Your task to perform on an android device: Open my contact list Image 0: 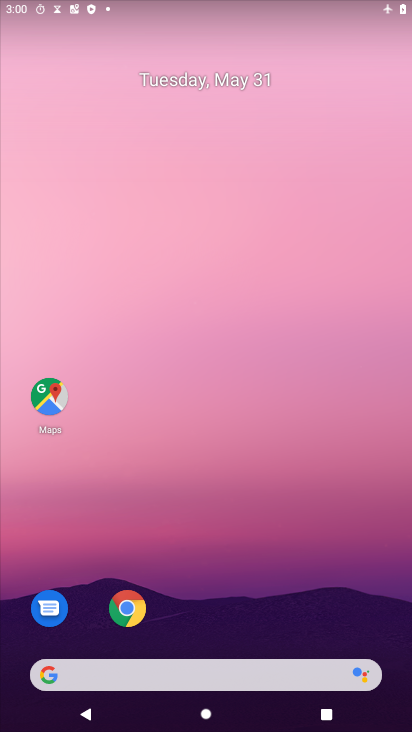
Step 0: drag from (240, 673) to (366, 340)
Your task to perform on an android device: Open my contact list Image 1: 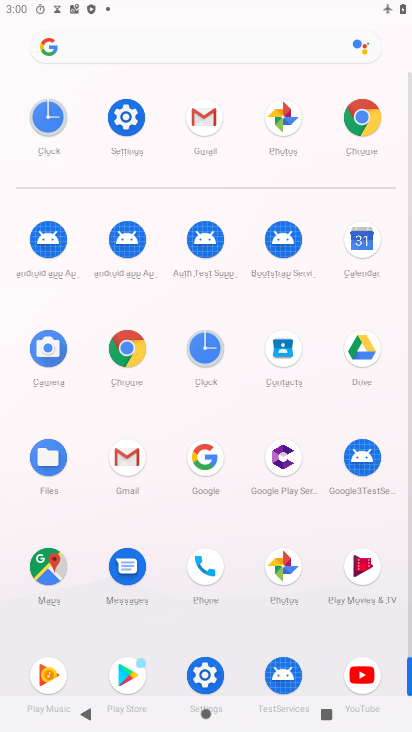
Step 1: click (285, 354)
Your task to perform on an android device: Open my contact list Image 2: 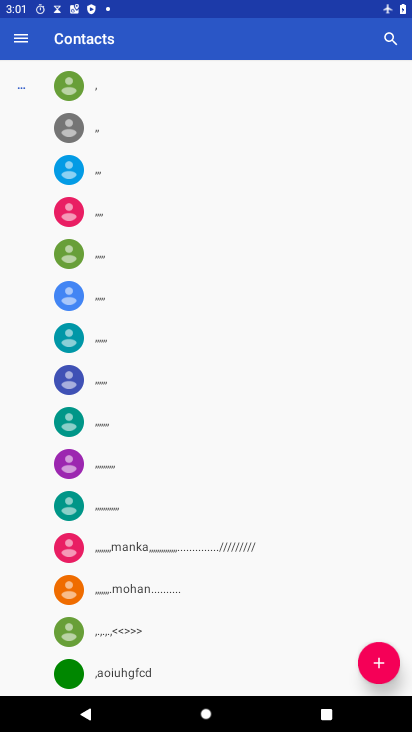
Step 2: task complete